Your task to perform on an android device: set an alarm Image 0: 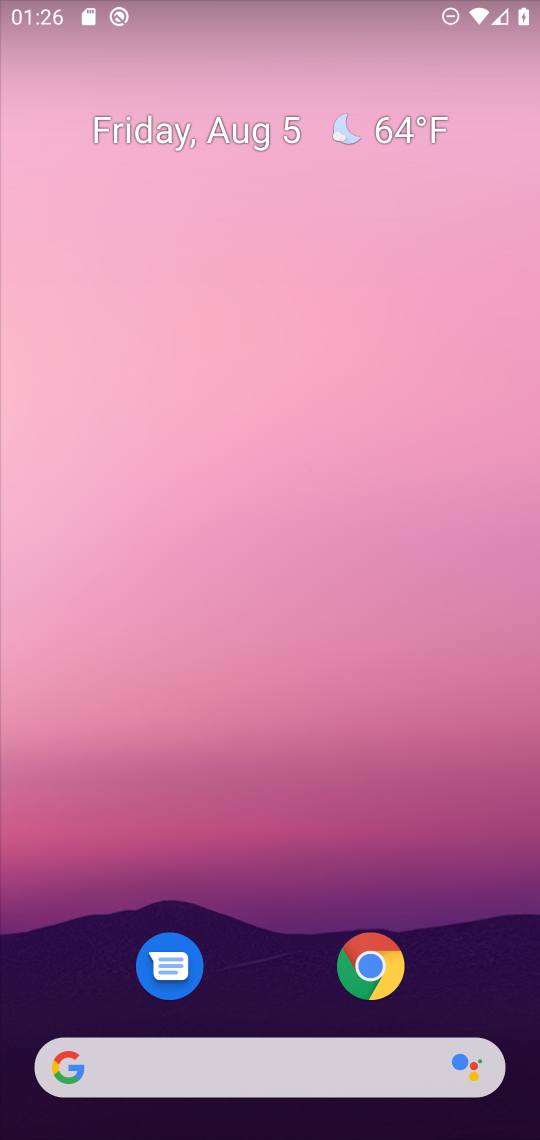
Step 0: drag from (296, 941) to (313, 147)
Your task to perform on an android device: set an alarm Image 1: 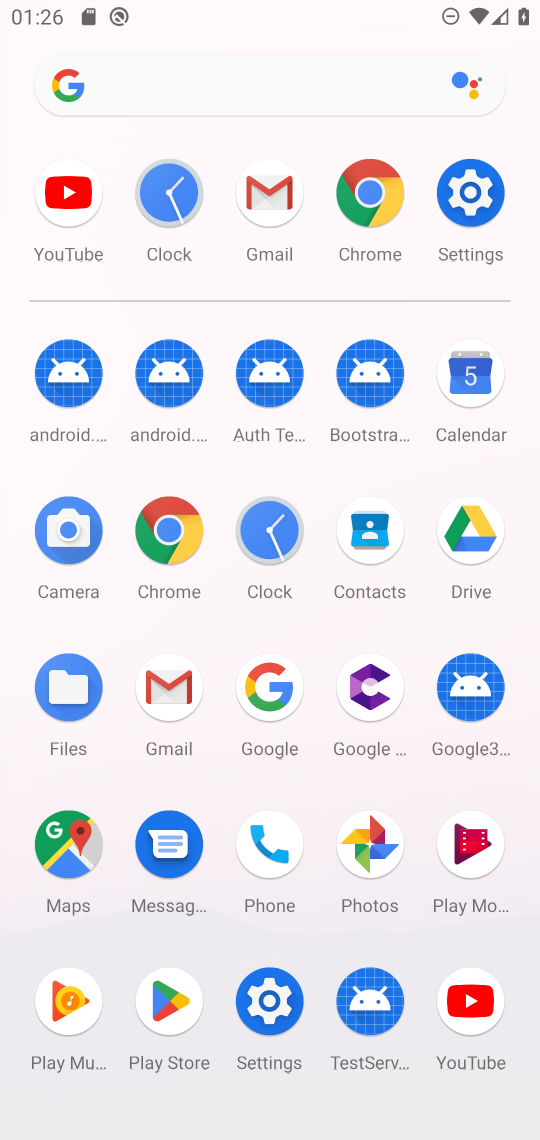
Step 1: click (263, 536)
Your task to perform on an android device: set an alarm Image 2: 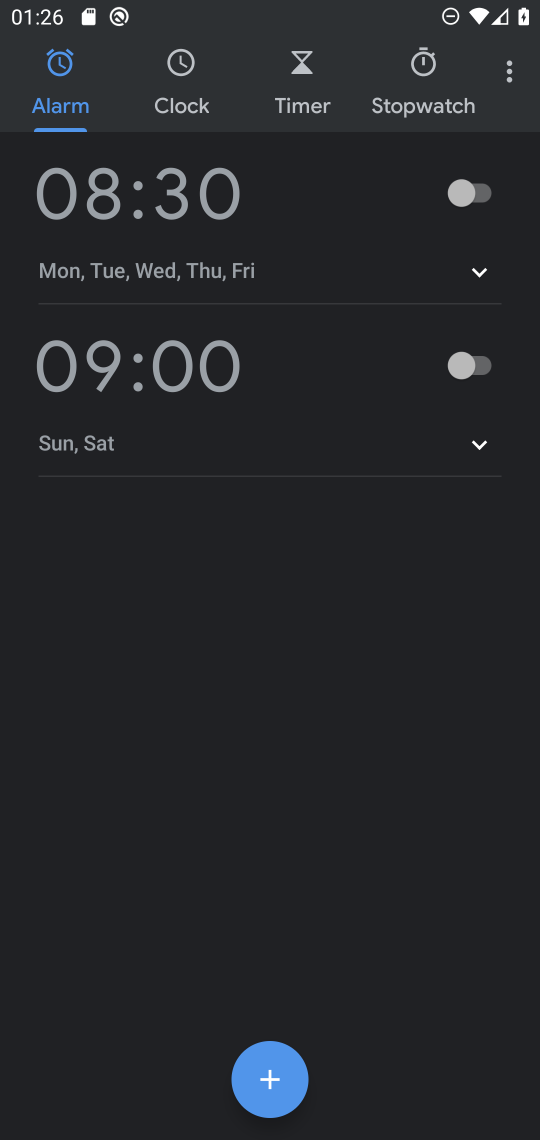
Step 2: click (193, 75)
Your task to perform on an android device: set an alarm Image 3: 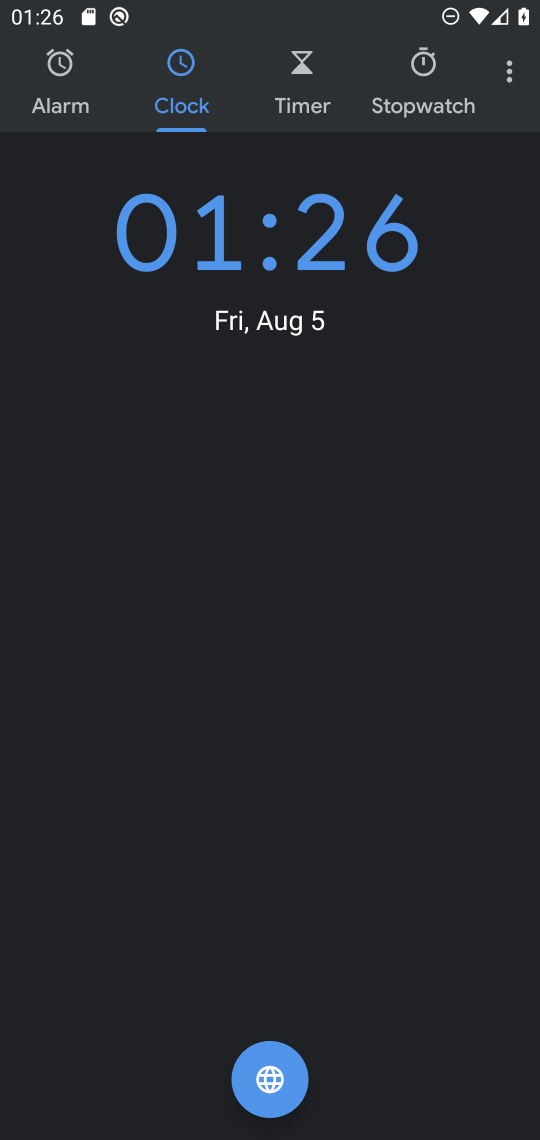
Step 3: click (59, 103)
Your task to perform on an android device: set an alarm Image 4: 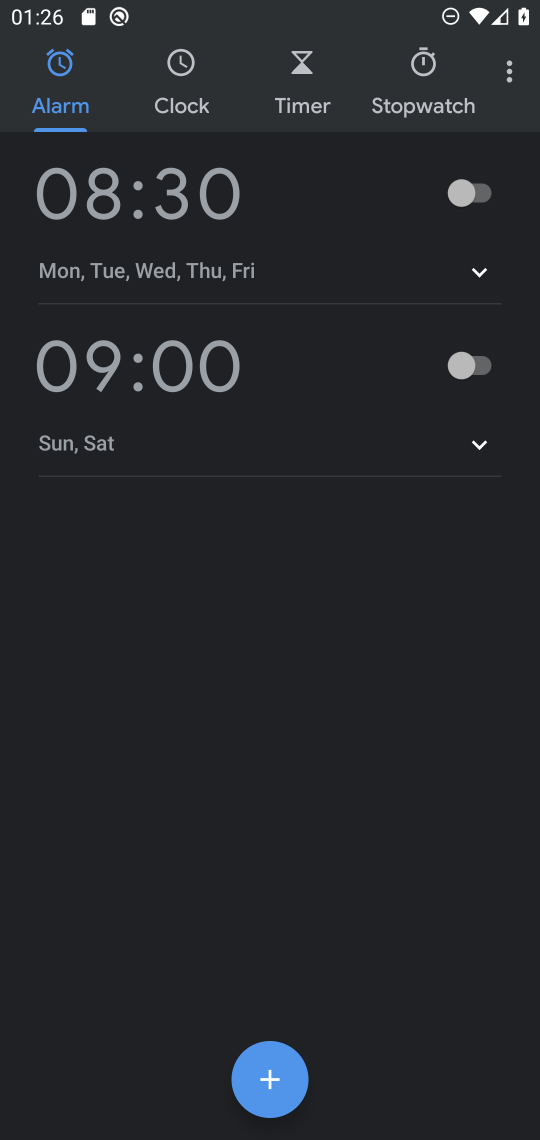
Step 4: click (267, 1082)
Your task to perform on an android device: set an alarm Image 5: 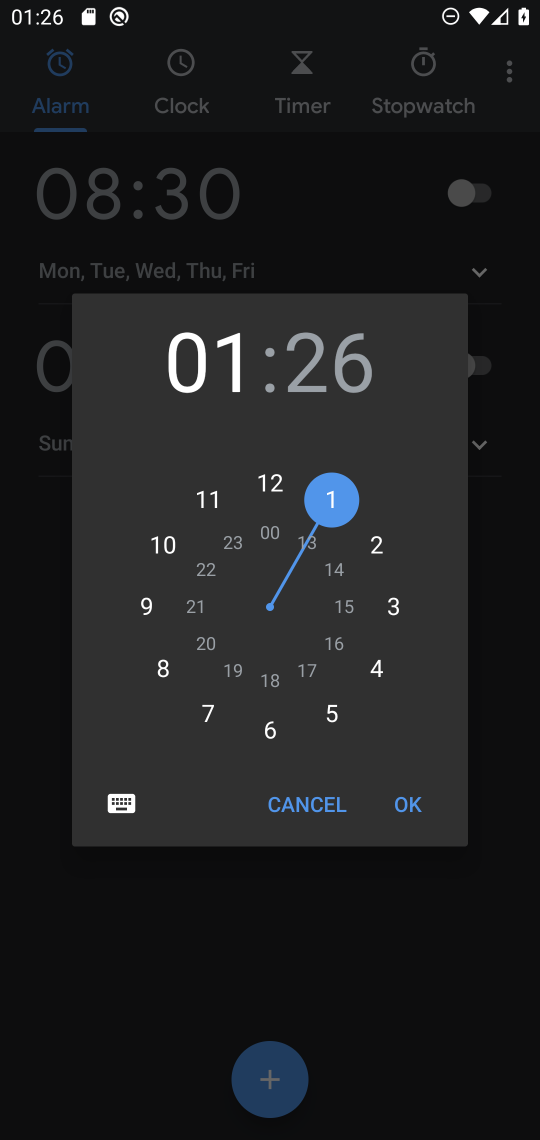
Step 5: click (336, 377)
Your task to perform on an android device: set an alarm Image 6: 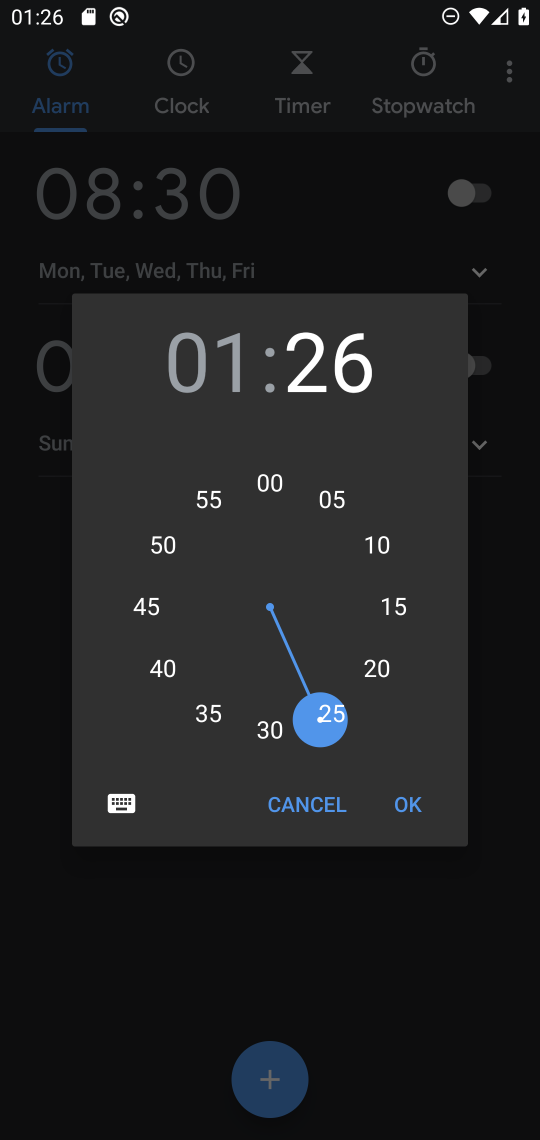
Step 6: click (280, 485)
Your task to perform on an android device: set an alarm Image 7: 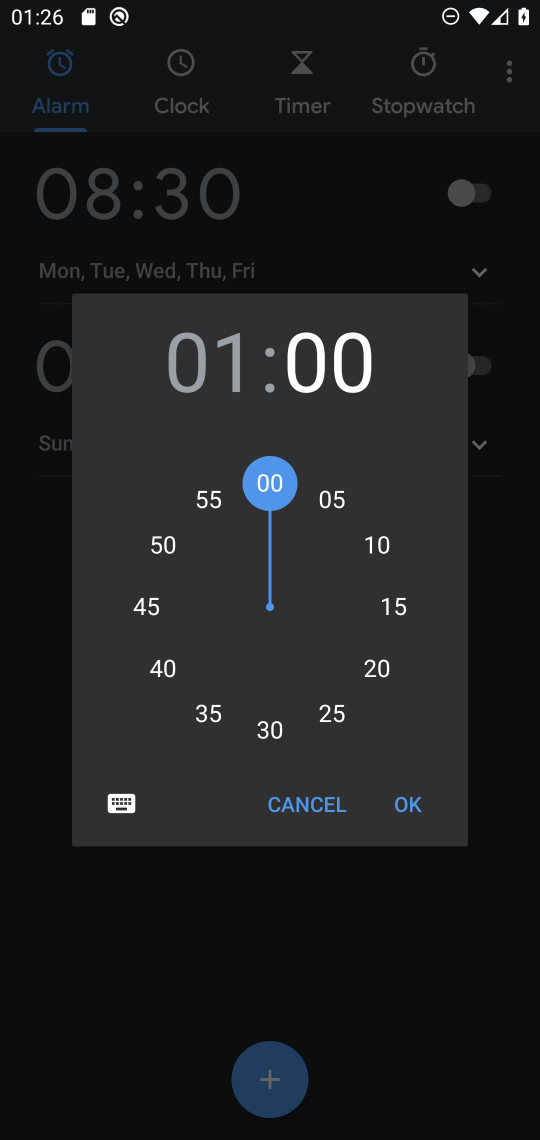
Step 7: click (390, 797)
Your task to perform on an android device: set an alarm Image 8: 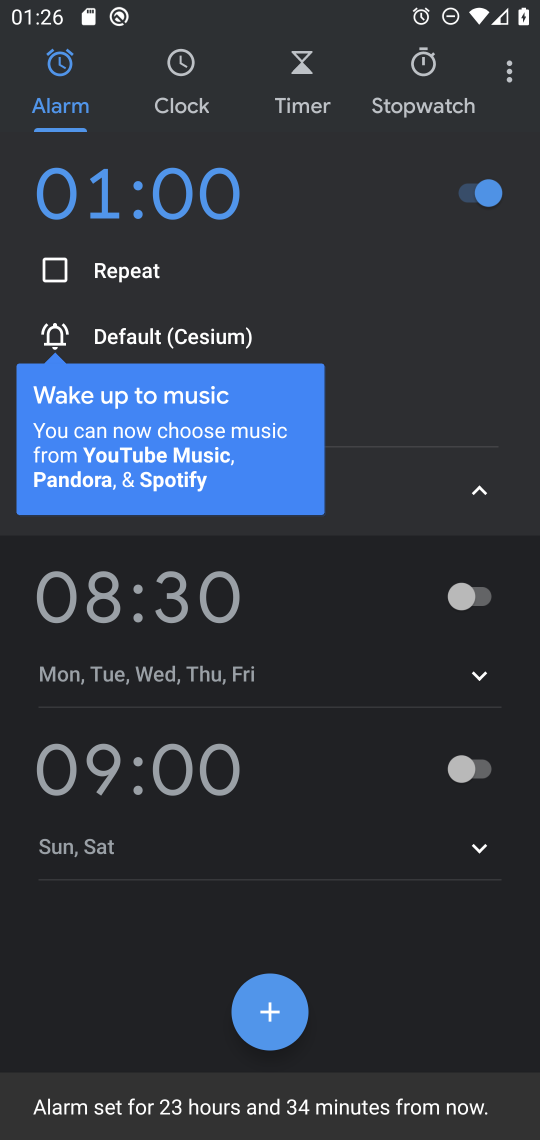
Step 8: task complete